Your task to perform on an android device: What is the news today? Image 0: 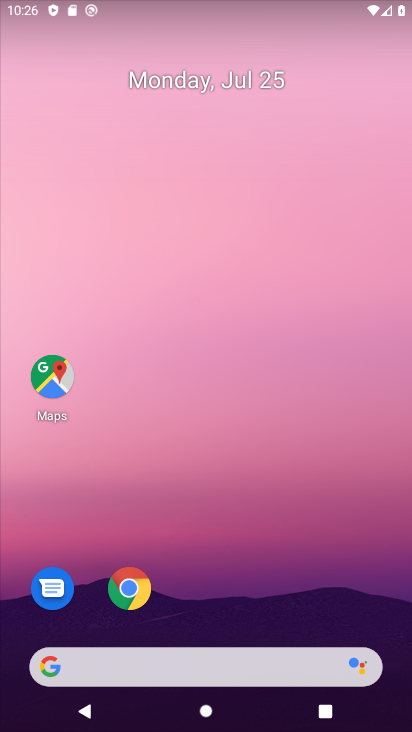
Step 0: click (241, 661)
Your task to perform on an android device: What is the news today? Image 1: 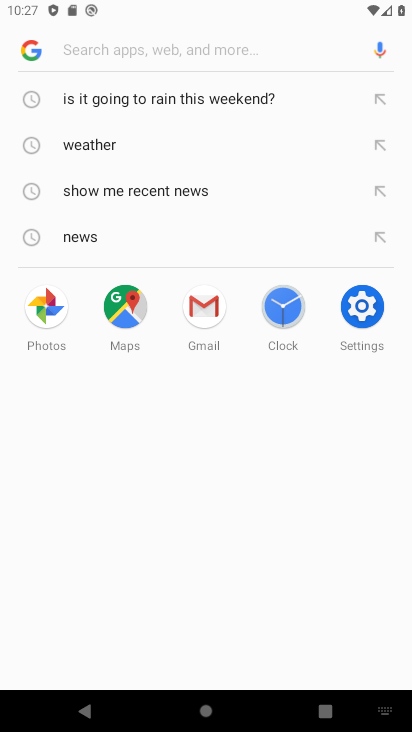
Step 1: type "news today"
Your task to perform on an android device: What is the news today? Image 2: 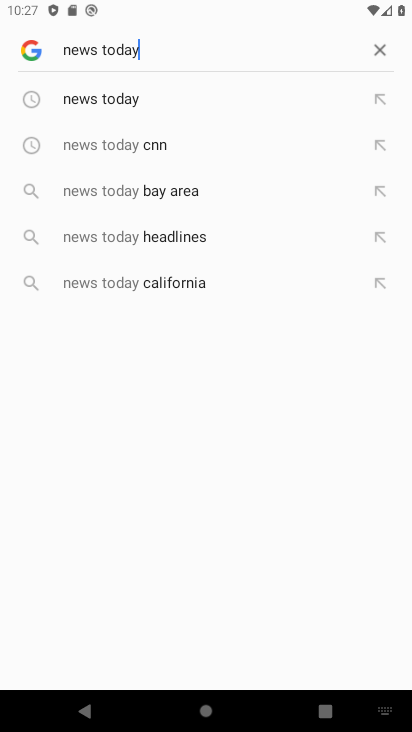
Step 2: click (204, 88)
Your task to perform on an android device: What is the news today? Image 3: 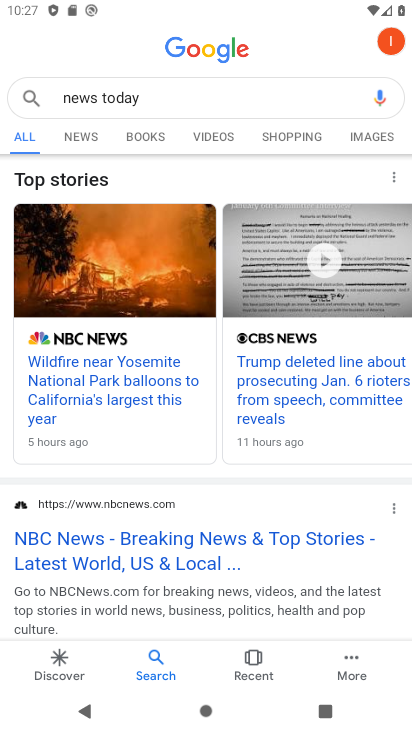
Step 3: task complete